Your task to perform on an android device: Clear the cart on amazon.com. Add asus zenbook to the cart on amazon.com Image 0: 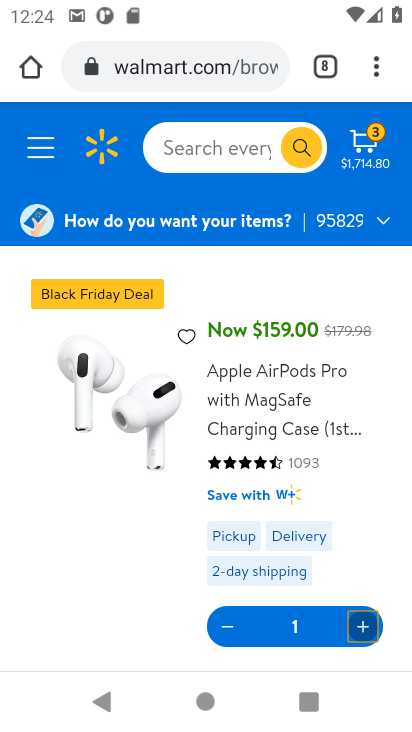
Step 0: click (328, 59)
Your task to perform on an android device: Clear the cart on amazon.com. Add asus zenbook to the cart on amazon.com Image 1: 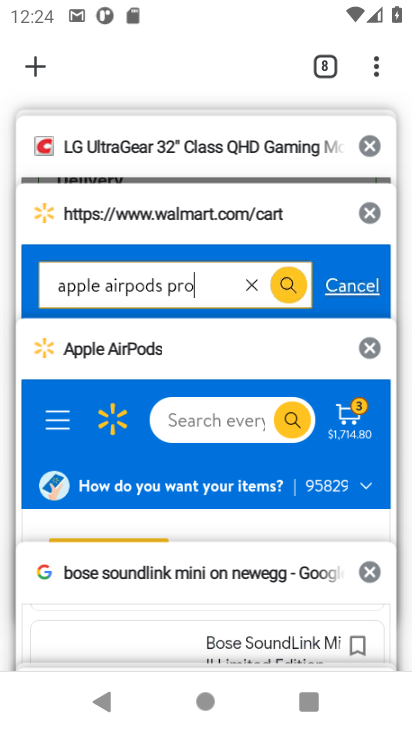
Step 1: click (369, 215)
Your task to perform on an android device: Clear the cart on amazon.com. Add asus zenbook to the cart on amazon.com Image 2: 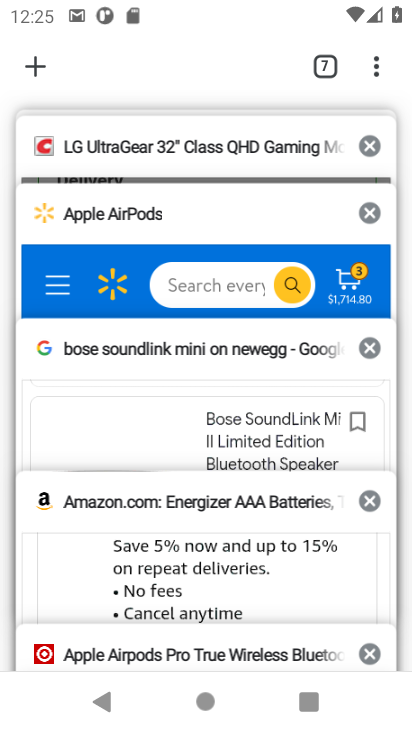
Step 2: click (270, 556)
Your task to perform on an android device: Clear the cart on amazon.com. Add asus zenbook to the cart on amazon.com Image 3: 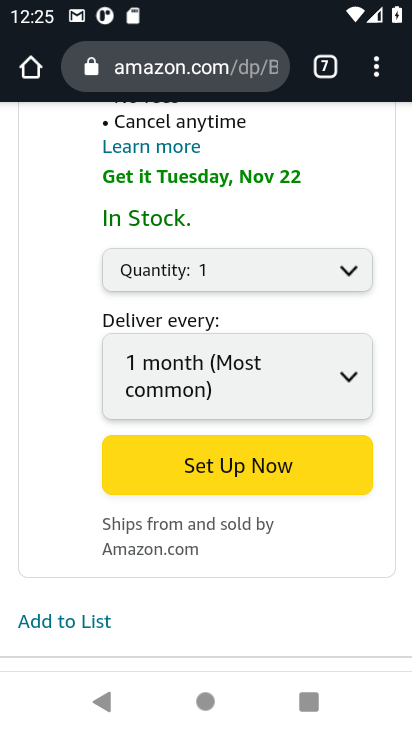
Step 3: drag from (328, 173) to (299, 373)
Your task to perform on an android device: Clear the cart on amazon.com. Add asus zenbook to the cart on amazon.com Image 4: 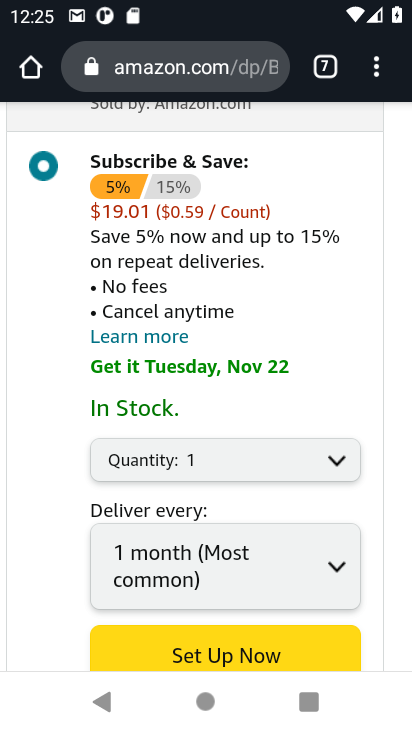
Step 4: drag from (288, 195) to (203, 582)
Your task to perform on an android device: Clear the cart on amazon.com. Add asus zenbook to the cart on amazon.com Image 5: 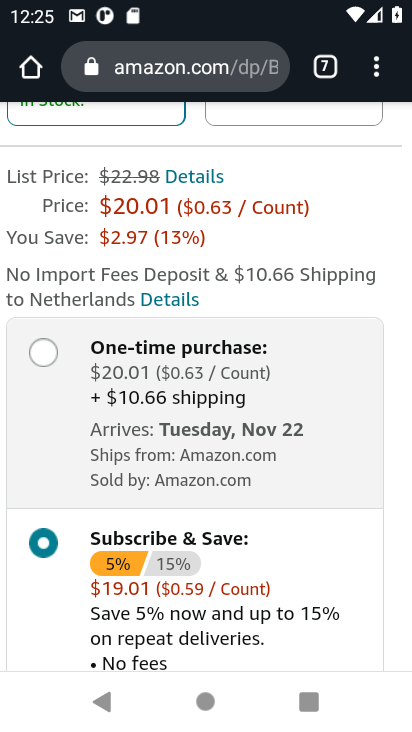
Step 5: drag from (285, 232) to (217, 700)
Your task to perform on an android device: Clear the cart on amazon.com. Add asus zenbook to the cart on amazon.com Image 6: 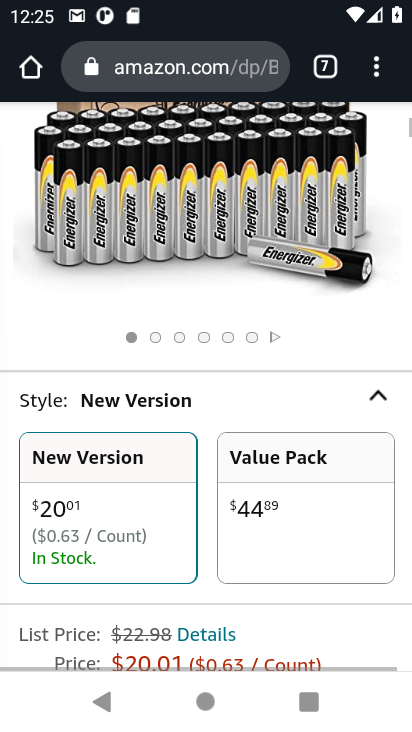
Step 6: drag from (340, 256) to (245, 684)
Your task to perform on an android device: Clear the cart on amazon.com. Add asus zenbook to the cart on amazon.com Image 7: 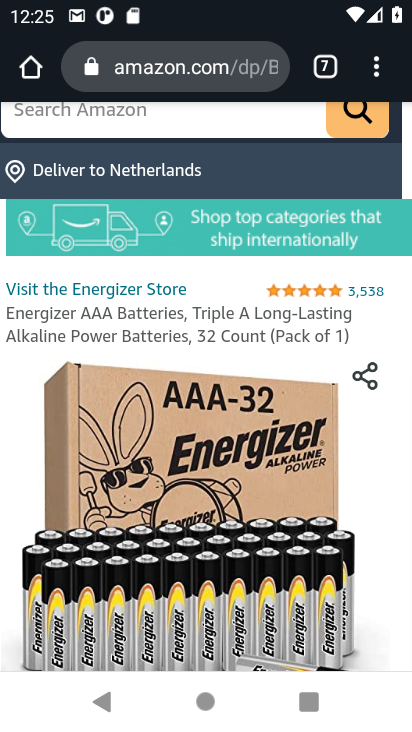
Step 7: drag from (362, 251) to (379, 567)
Your task to perform on an android device: Clear the cart on amazon.com. Add asus zenbook to the cart on amazon.com Image 8: 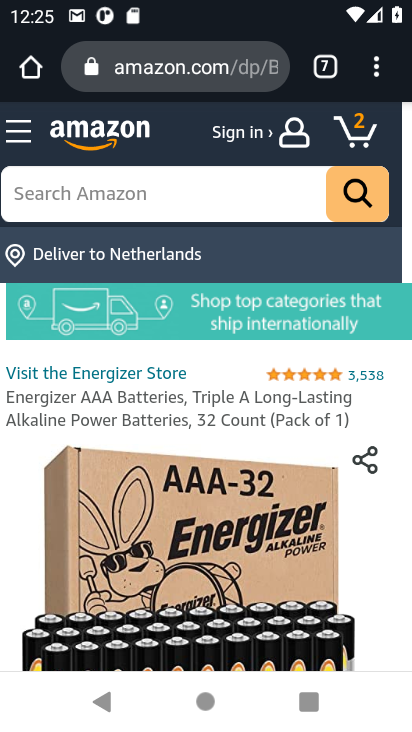
Step 8: click (362, 116)
Your task to perform on an android device: Clear the cart on amazon.com. Add asus zenbook to the cart on amazon.com Image 9: 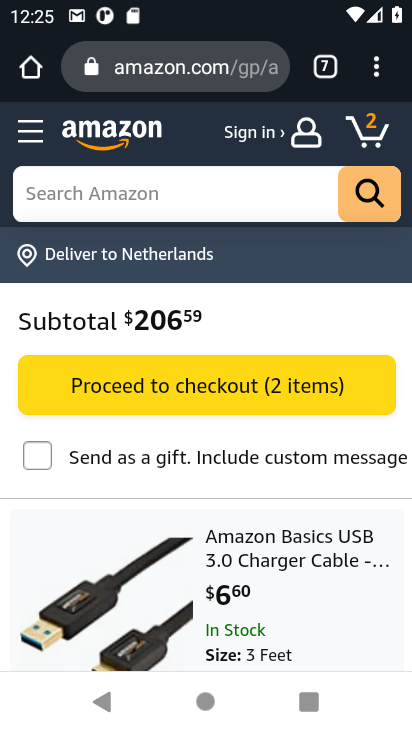
Step 9: drag from (165, 524) to (318, 131)
Your task to perform on an android device: Clear the cart on amazon.com. Add asus zenbook to the cart on amazon.com Image 10: 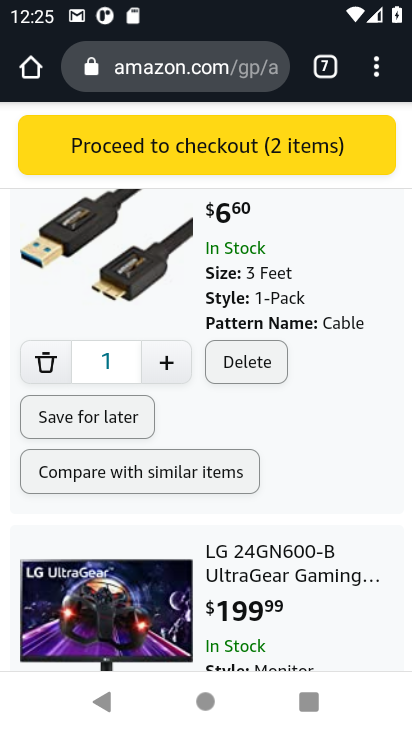
Step 10: click (246, 366)
Your task to perform on an android device: Clear the cart on amazon.com. Add asus zenbook to the cart on amazon.com Image 11: 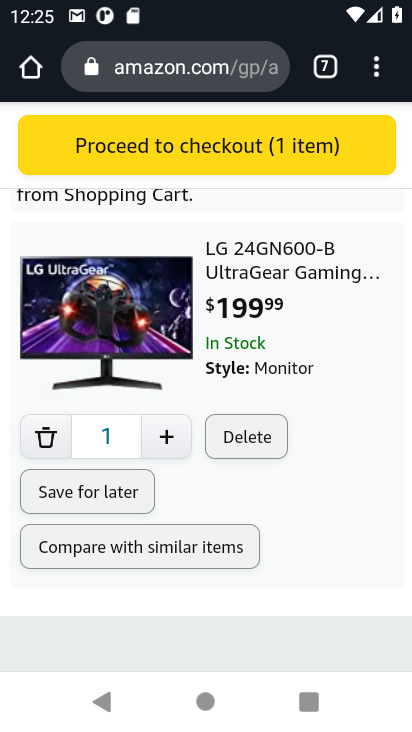
Step 11: click (249, 424)
Your task to perform on an android device: Clear the cart on amazon.com. Add asus zenbook to the cart on amazon.com Image 12: 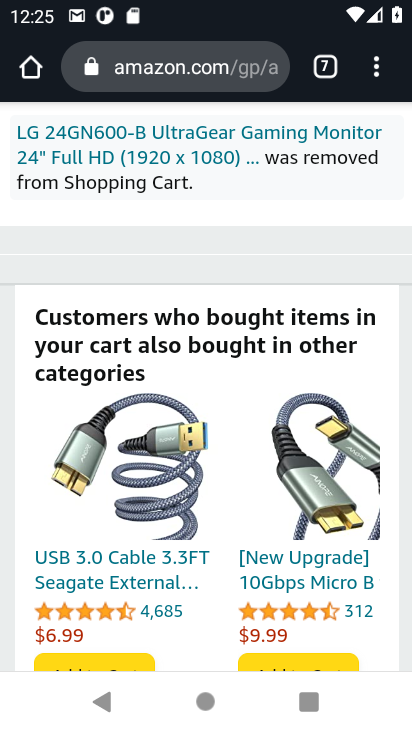
Step 12: drag from (172, 116) to (140, 391)
Your task to perform on an android device: Clear the cart on amazon.com. Add asus zenbook to the cart on amazon.com Image 13: 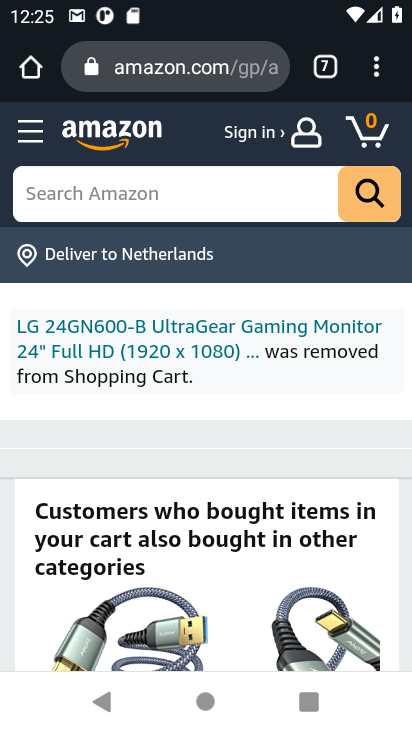
Step 13: click (188, 197)
Your task to perform on an android device: Clear the cart on amazon.com. Add asus zenbook to the cart on amazon.com Image 14: 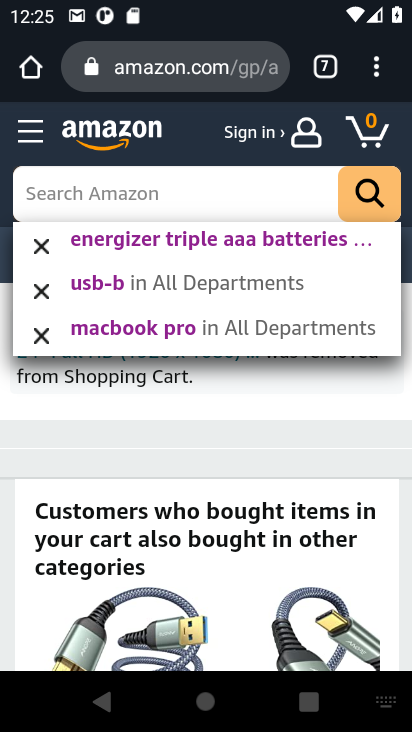
Step 14: type "asus zenbook"
Your task to perform on an android device: Clear the cart on amazon.com. Add asus zenbook to the cart on amazon.com Image 15: 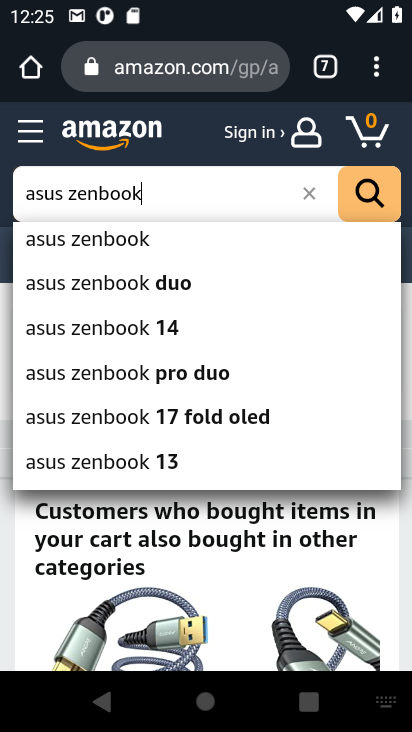
Step 15: click (101, 248)
Your task to perform on an android device: Clear the cart on amazon.com. Add asus zenbook to the cart on amazon.com Image 16: 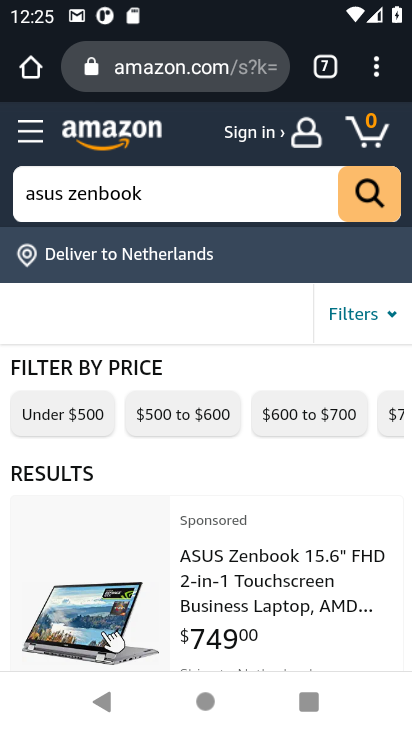
Step 16: drag from (269, 567) to (336, 250)
Your task to perform on an android device: Clear the cart on amazon.com. Add asus zenbook to the cart on amazon.com Image 17: 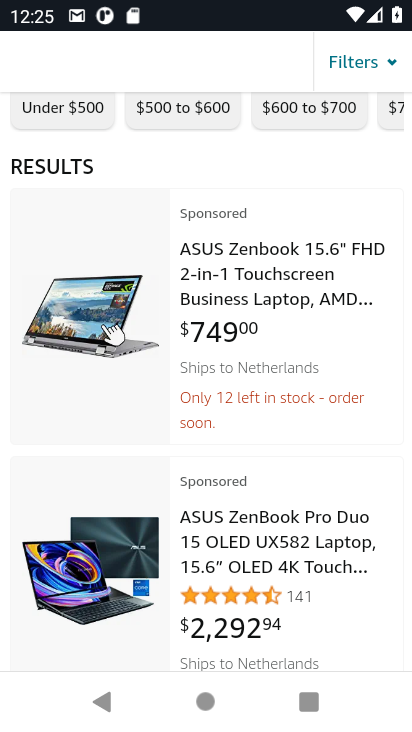
Step 17: click (275, 255)
Your task to perform on an android device: Clear the cart on amazon.com. Add asus zenbook to the cart on amazon.com Image 18: 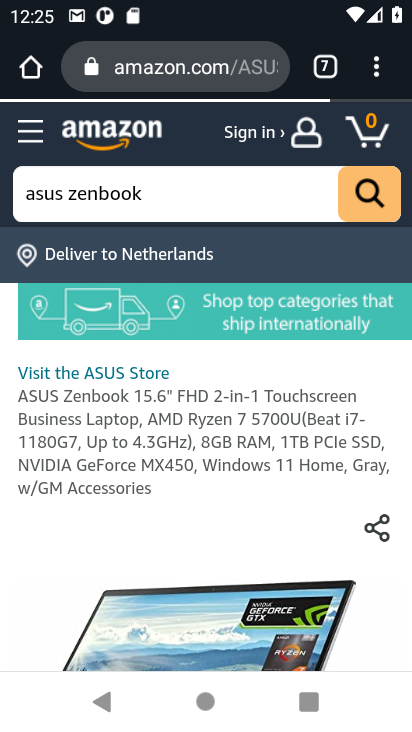
Step 18: drag from (315, 545) to (355, 300)
Your task to perform on an android device: Clear the cart on amazon.com. Add asus zenbook to the cart on amazon.com Image 19: 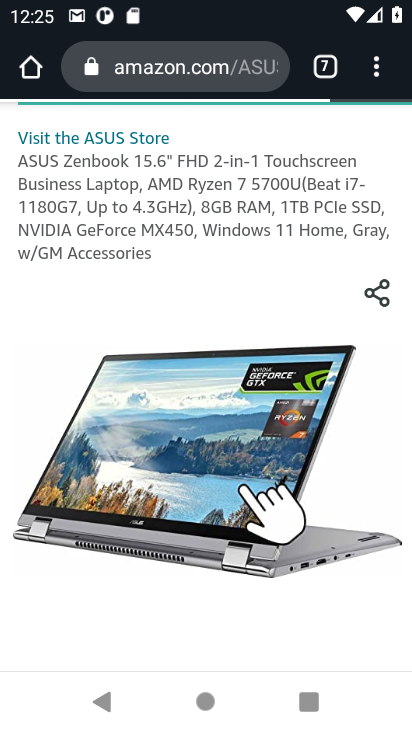
Step 19: drag from (323, 506) to (368, 404)
Your task to perform on an android device: Clear the cart on amazon.com. Add asus zenbook to the cart on amazon.com Image 20: 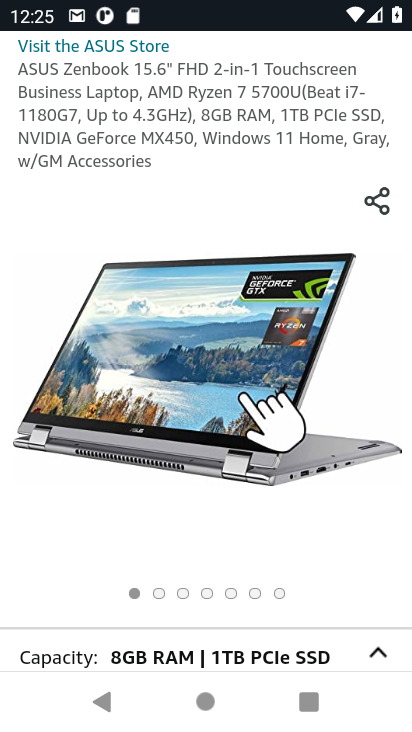
Step 20: drag from (329, 558) to (239, 157)
Your task to perform on an android device: Clear the cart on amazon.com. Add asus zenbook to the cart on amazon.com Image 21: 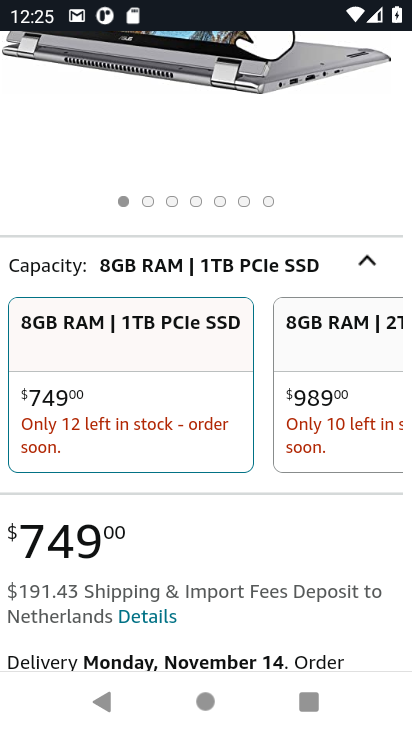
Step 21: drag from (229, 533) to (267, 412)
Your task to perform on an android device: Clear the cart on amazon.com. Add asus zenbook to the cart on amazon.com Image 22: 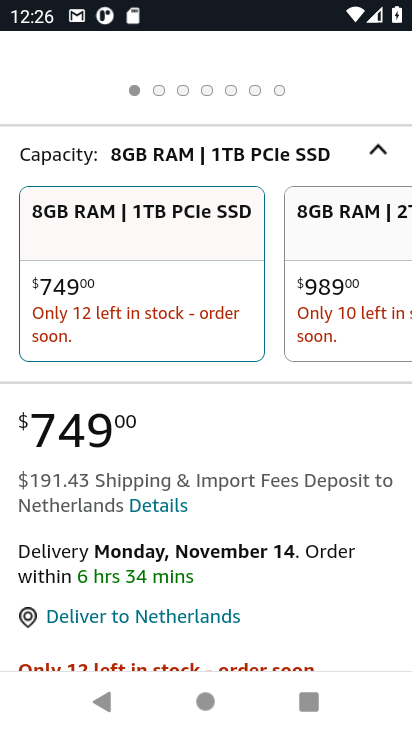
Step 22: drag from (265, 607) to (314, 381)
Your task to perform on an android device: Clear the cart on amazon.com. Add asus zenbook to the cart on amazon.com Image 23: 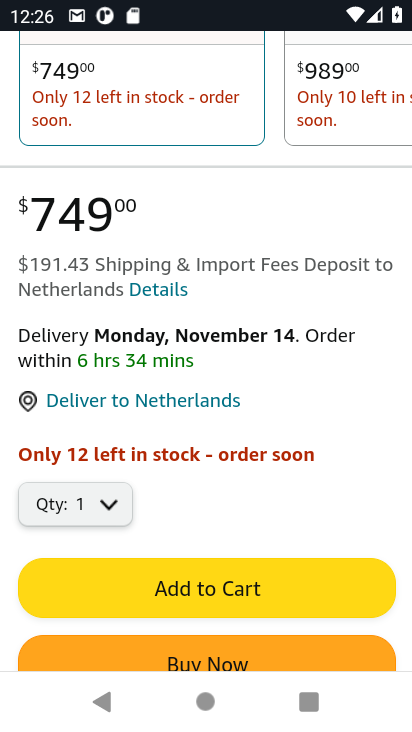
Step 23: click (252, 592)
Your task to perform on an android device: Clear the cart on amazon.com. Add asus zenbook to the cart on amazon.com Image 24: 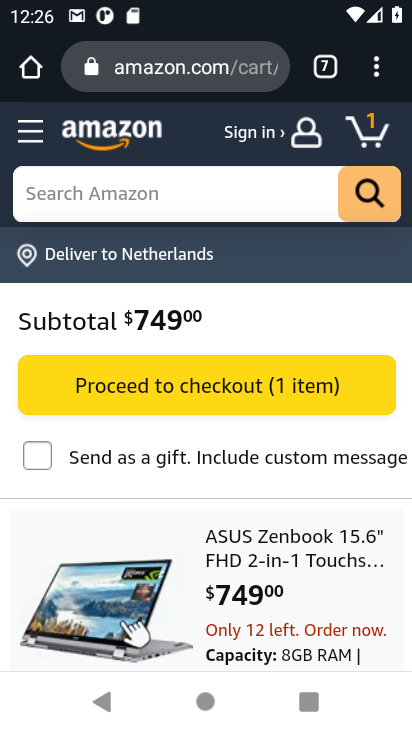
Step 24: task complete